Your task to perform on an android device: open chrome privacy settings Image 0: 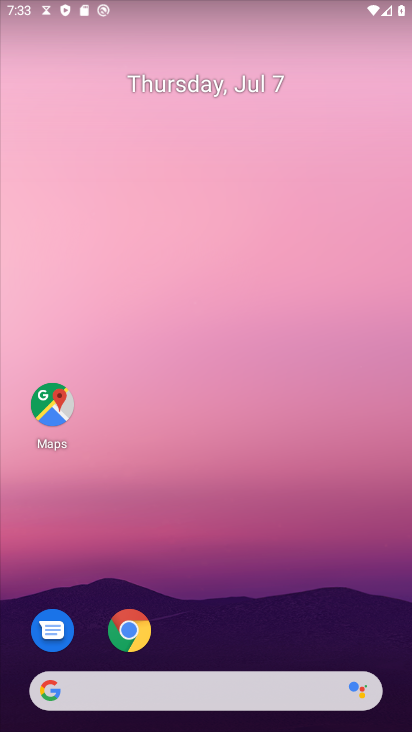
Step 0: click (122, 640)
Your task to perform on an android device: open chrome privacy settings Image 1: 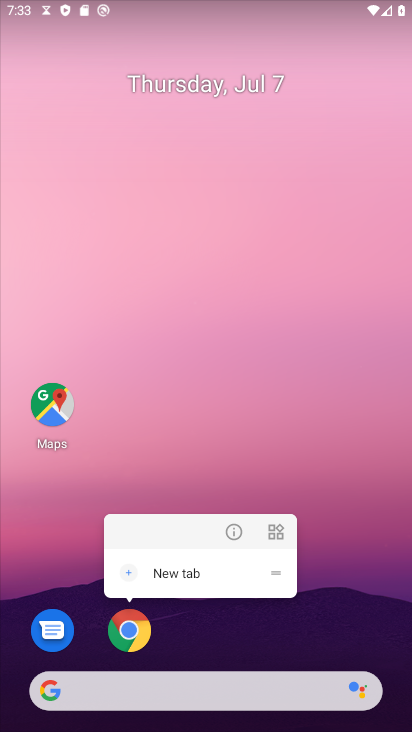
Step 1: click (132, 624)
Your task to perform on an android device: open chrome privacy settings Image 2: 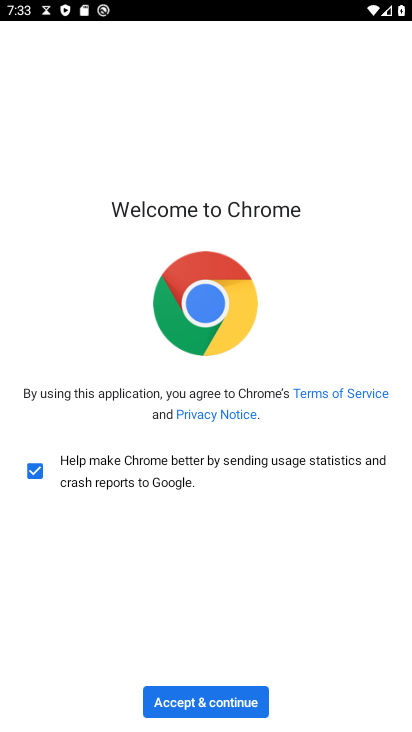
Step 2: click (193, 701)
Your task to perform on an android device: open chrome privacy settings Image 3: 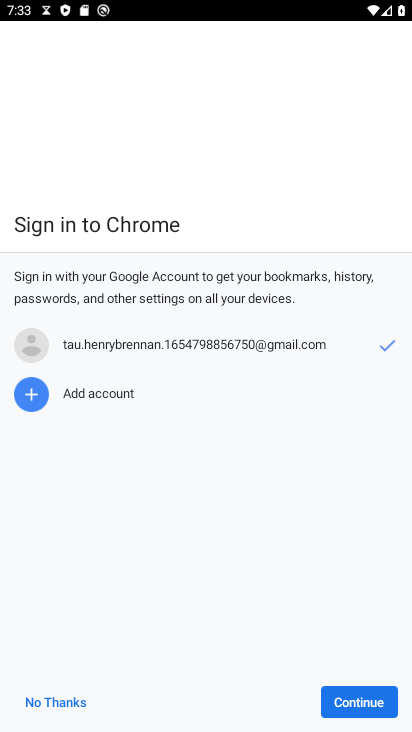
Step 3: click (346, 711)
Your task to perform on an android device: open chrome privacy settings Image 4: 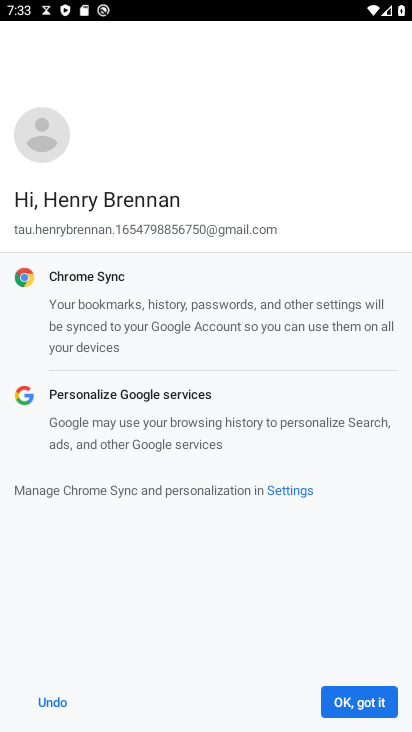
Step 4: click (344, 711)
Your task to perform on an android device: open chrome privacy settings Image 5: 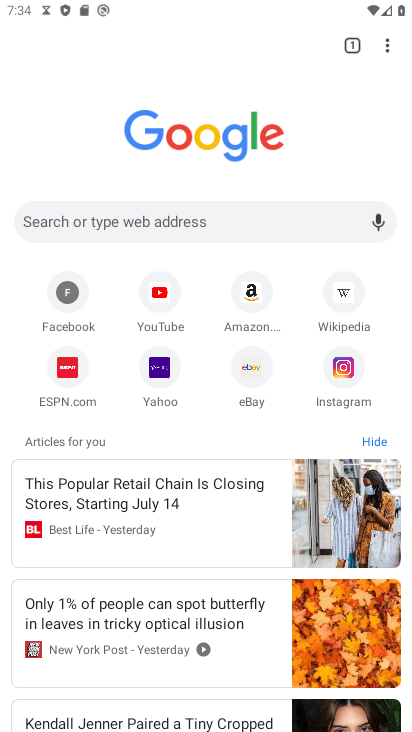
Step 5: click (384, 44)
Your task to perform on an android device: open chrome privacy settings Image 6: 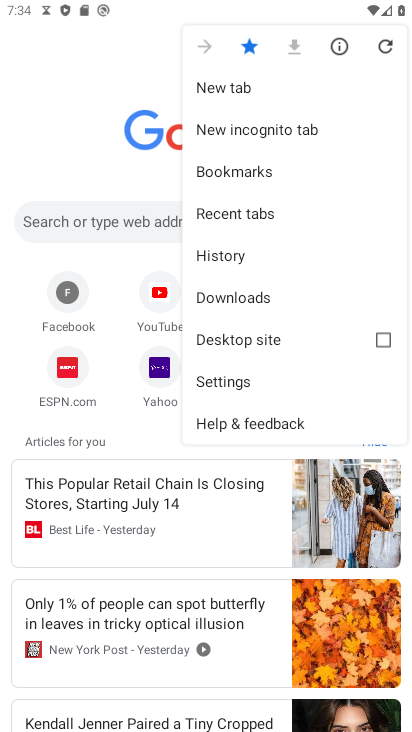
Step 6: click (212, 387)
Your task to perform on an android device: open chrome privacy settings Image 7: 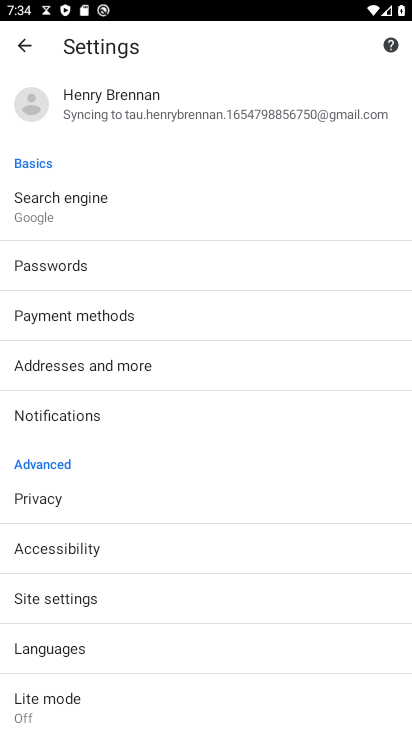
Step 7: click (53, 493)
Your task to perform on an android device: open chrome privacy settings Image 8: 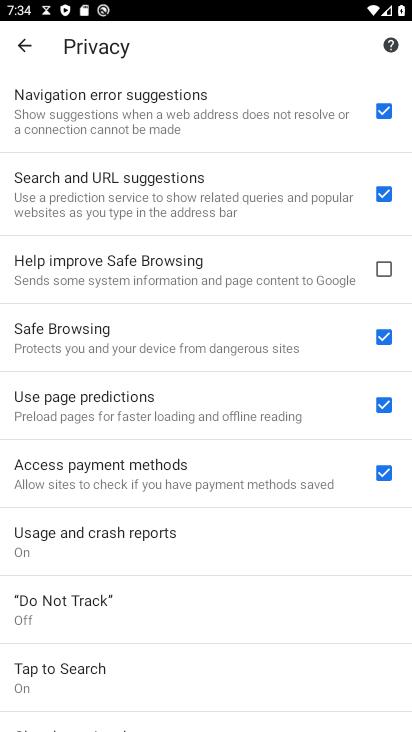
Step 8: task complete